Your task to perform on an android device: open a bookmark in the chrome app Image 0: 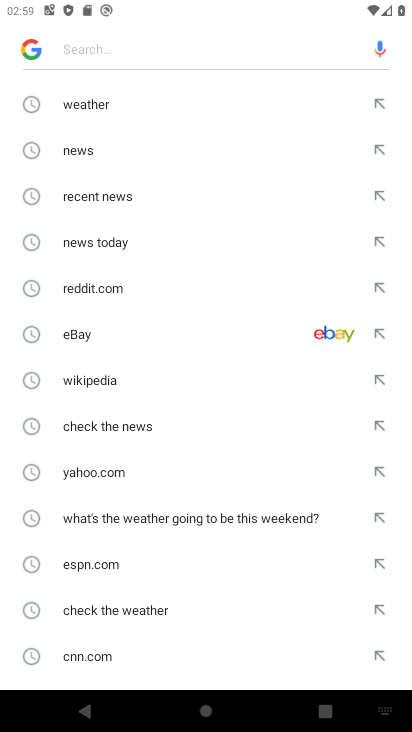
Step 0: press home button
Your task to perform on an android device: open a bookmark in the chrome app Image 1: 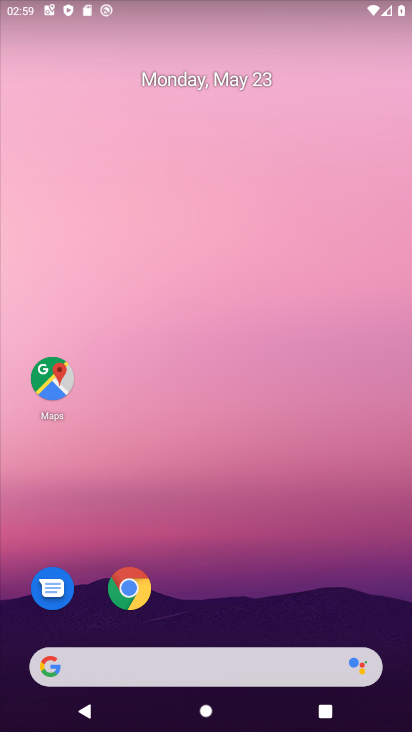
Step 1: click (130, 588)
Your task to perform on an android device: open a bookmark in the chrome app Image 2: 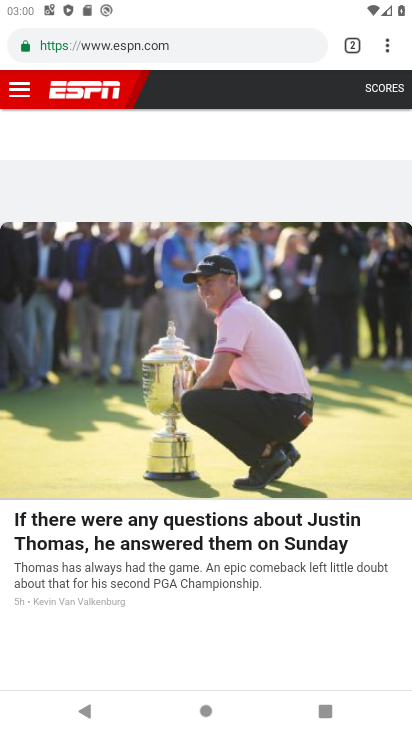
Step 2: click (390, 60)
Your task to perform on an android device: open a bookmark in the chrome app Image 3: 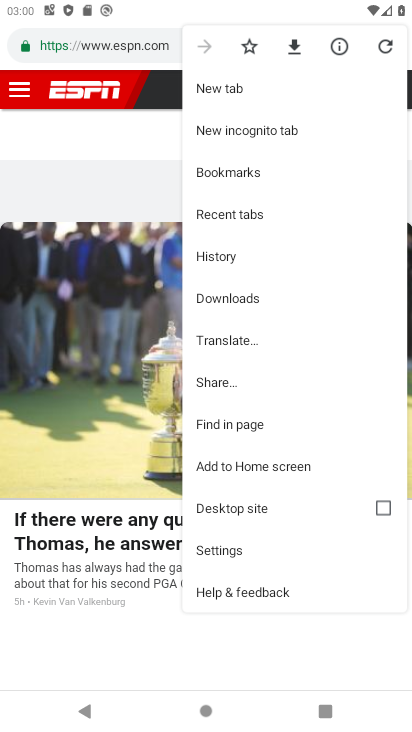
Step 3: click (222, 174)
Your task to perform on an android device: open a bookmark in the chrome app Image 4: 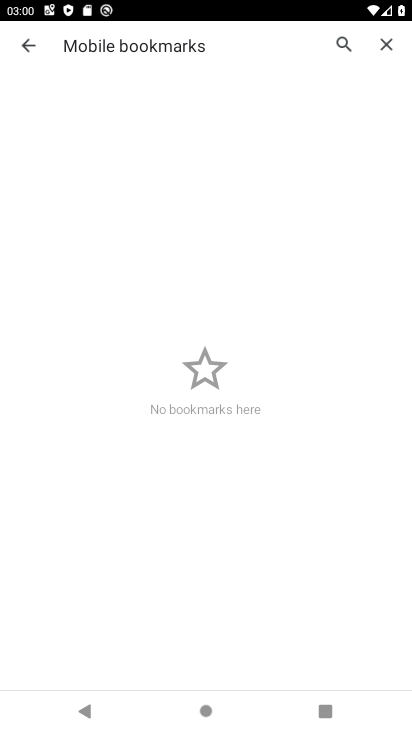
Step 4: task complete